Your task to perform on an android device: turn off translation in the chrome app Image 0: 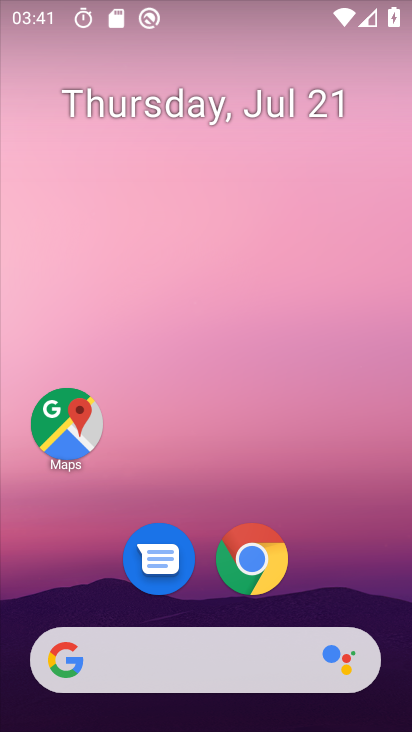
Step 0: drag from (377, 585) to (348, 146)
Your task to perform on an android device: turn off translation in the chrome app Image 1: 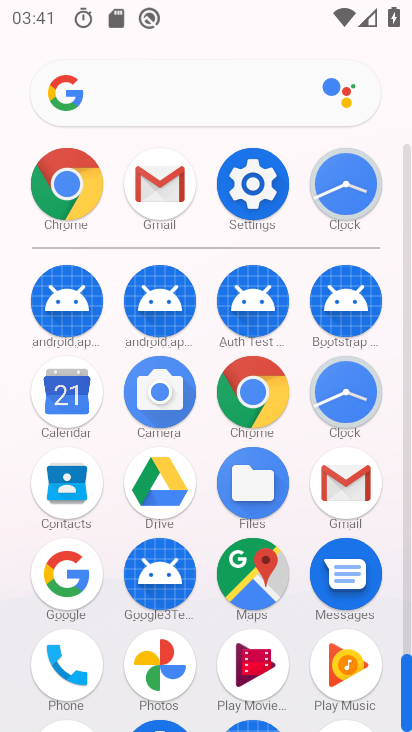
Step 1: click (274, 391)
Your task to perform on an android device: turn off translation in the chrome app Image 2: 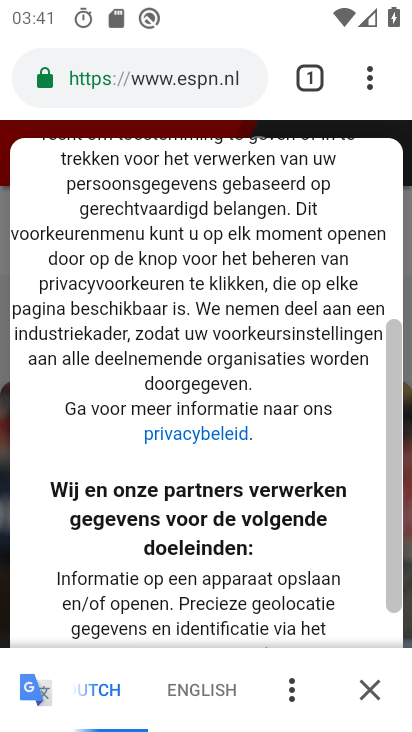
Step 2: click (368, 83)
Your task to perform on an android device: turn off translation in the chrome app Image 3: 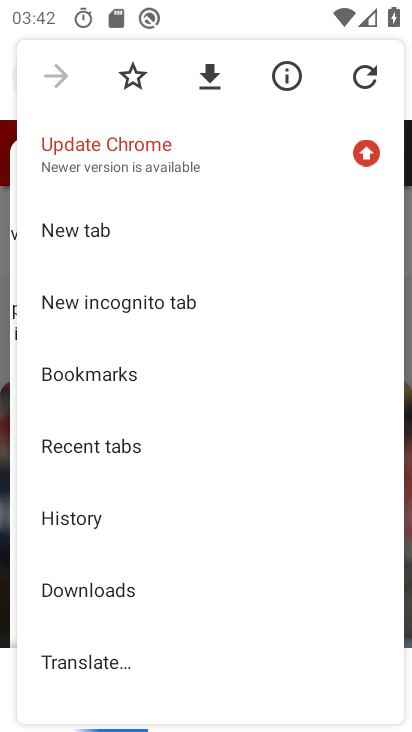
Step 3: drag from (274, 396) to (280, 338)
Your task to perform on an android device: turn off translation in the chrome app Image 4: 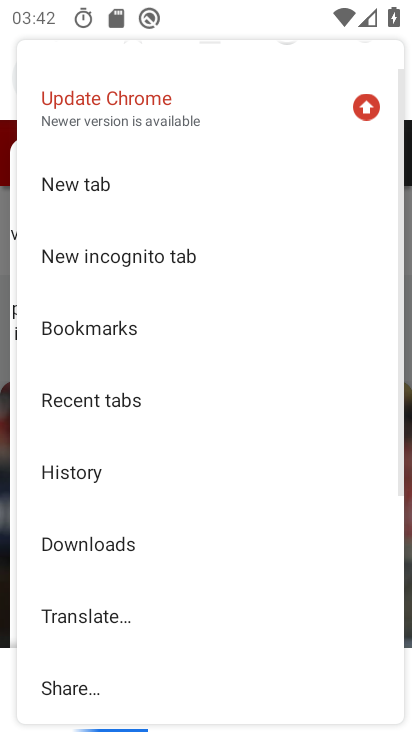
Step 4: drag from (285, 453) to (288, 358)
Your task to perform on an android device: turn off translation in the chrome app Image 5: 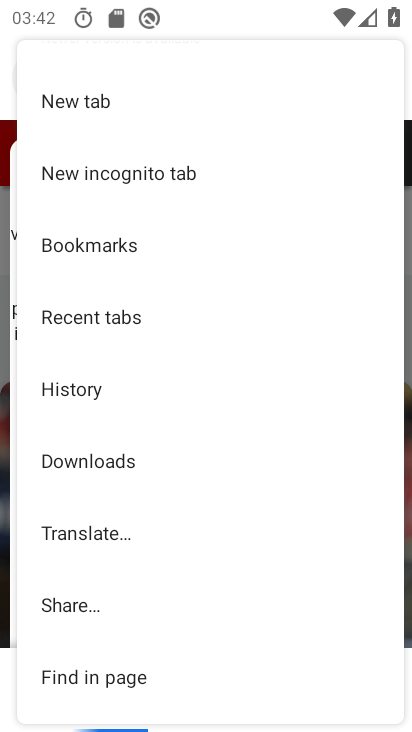
Step 5: drag from (287, 484) to (288, 337)
Your task to perform on an android device: turn off translation in the chrome app Image 6: 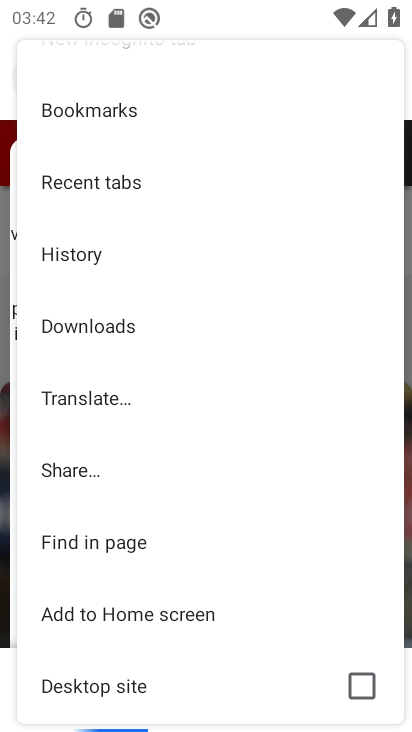
Step 6: drag from (276, 495) to (276, 355)
Your task to perform on an android device: turn off translation in the chrome app Image 7: 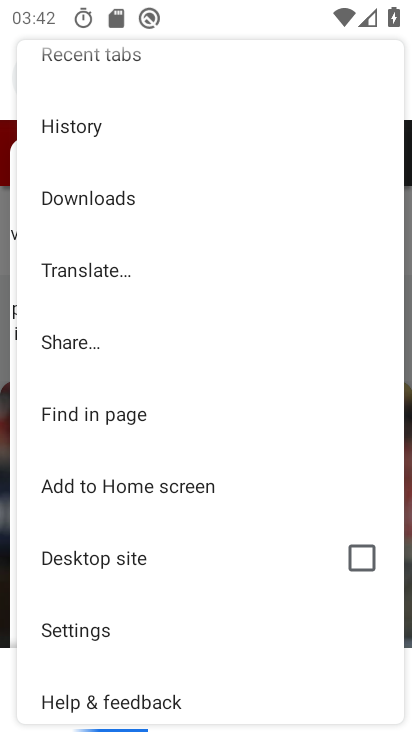
Step 7: click (249, 614)
Your task to perform on an android device: turn off translation in the chrome app Image 8: 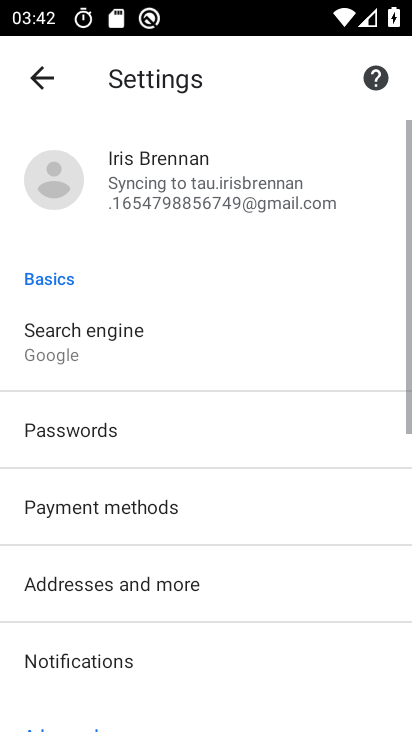
Step 8: drag from (251, 604) to (252, 511)
Your task to perform on an android device: turn off translation in the chrome app Image 9: 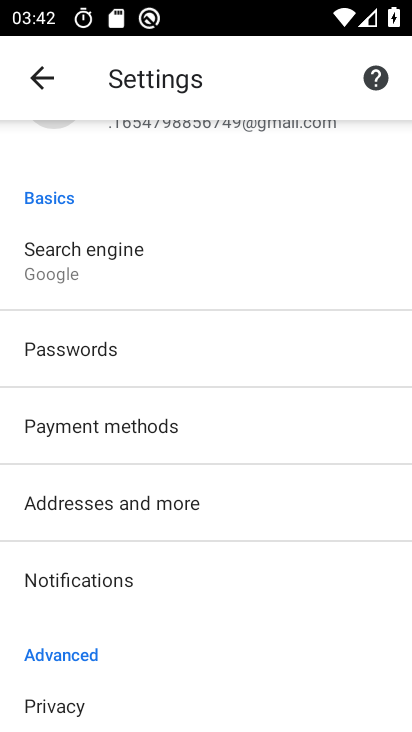
Step 9: drag from (252, 589) to (254, 358)
Your task to perform on an android device: turn off translation in the chrome app Image 10: 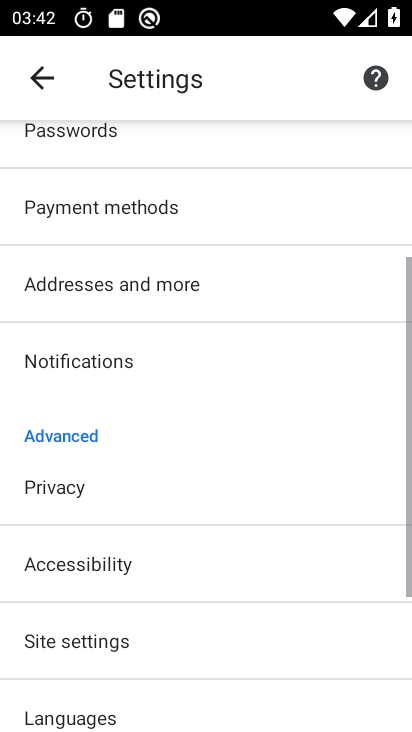
Step 10: drag from (247, 495) to (250, 249)
Your task to perform on an android device: turn off translation in the chrome app Image 11: 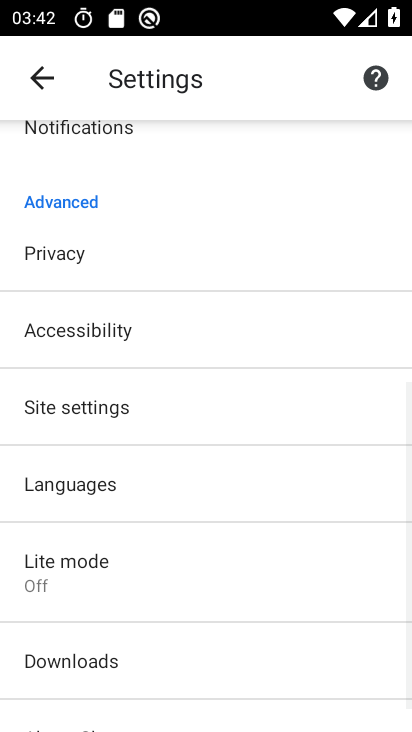
Step 11: drag from (250, 501) to (253, 325)
Your task to perform on an android device: turn off translation in the chrome app Image 12: 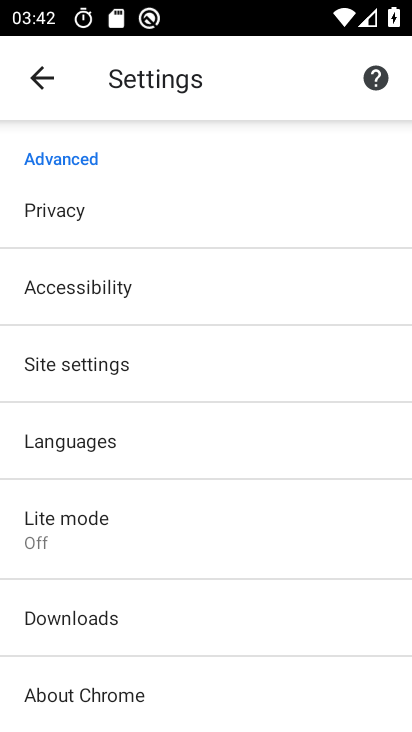
Step 12: click (245, 442)
Your task to perform on an android device: turn off translation in the chrome app Image 13: 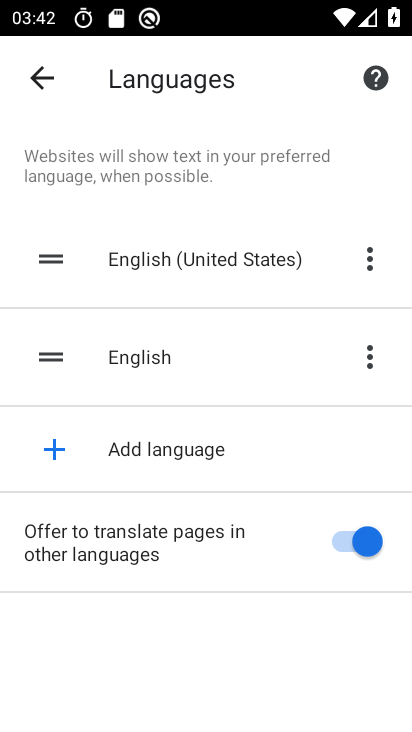
Step 13: click (379, 539)
Your task to perform on an android device: turn off translation in the chrome app Image 14: 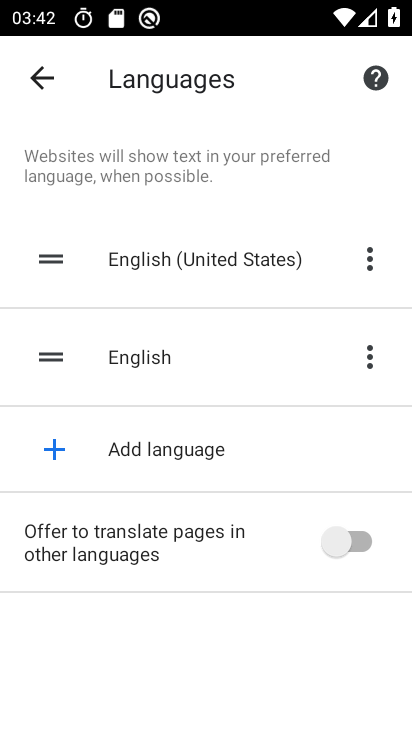
Step 14: task complete